Your task to perform on an android device: When is my next meeting? Image 0: 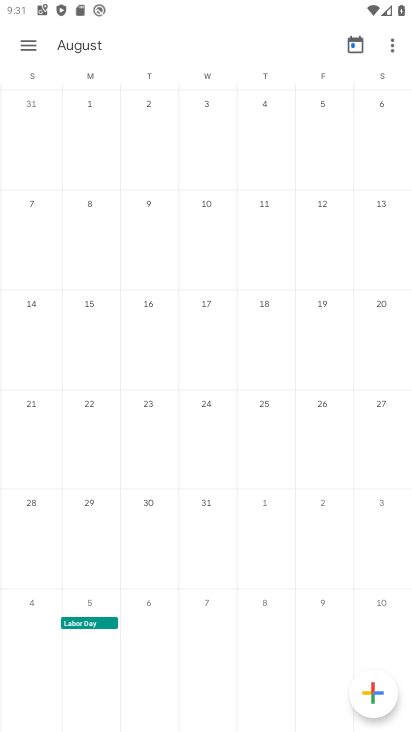
Step 0: click (35, 54)
Your task to perform on an android device: When is my next meeting? Image 1: 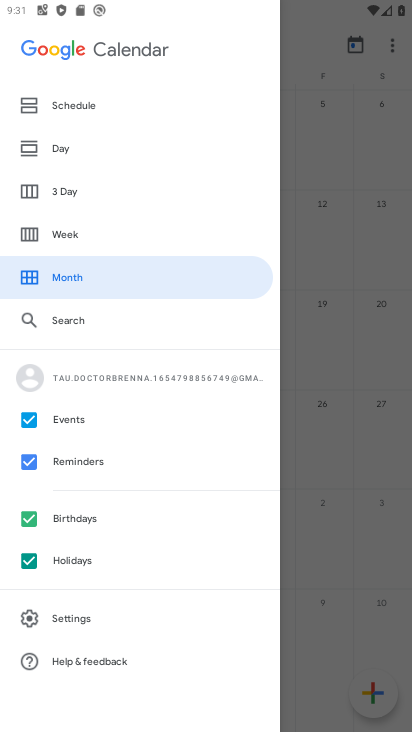
Step 1: click (61, 108)
Your task to perform on an android device: When is my next meeting? Image 2: 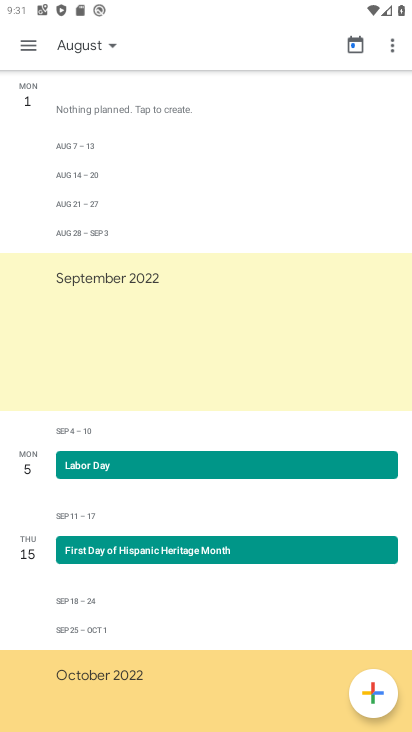
Step 2: task complete